Your task to perform on an android device: toggle translation in the chrome app Image 0: 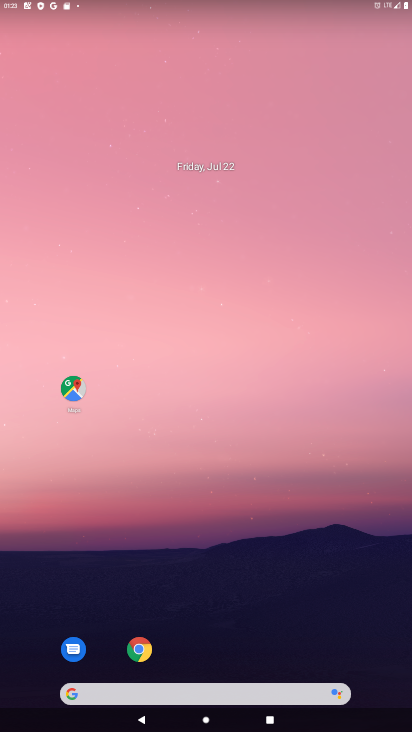
Step 0: drag from (281, 632) to (278, 0)
Your task to perform on an android device: toggle translation in the chrome app Image 1: 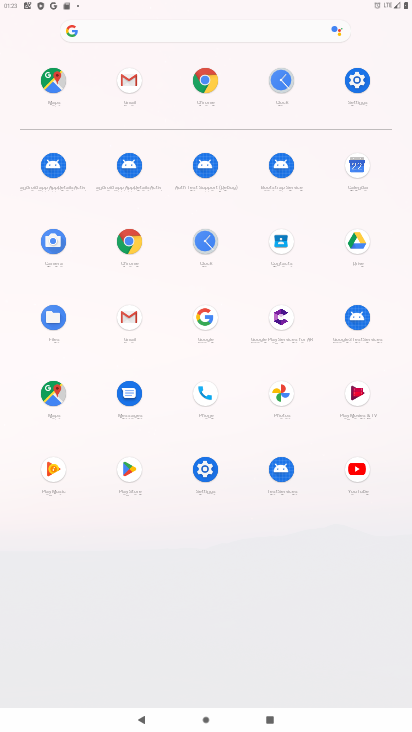
Step 1: click (135, 241)
Your task to perform on an android device: toggle translation in the chrome app Image 2: 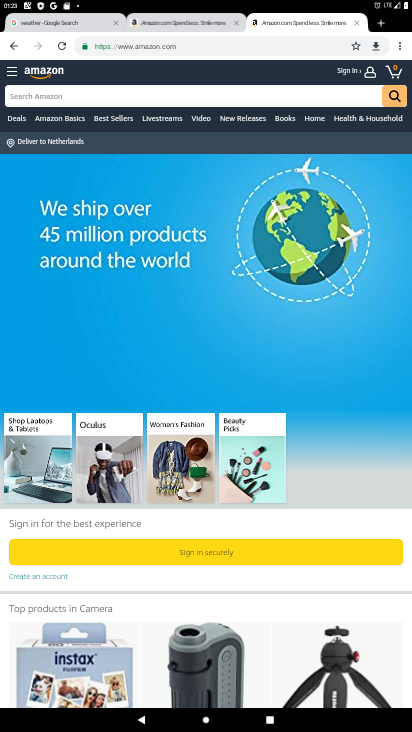
Step 2: drag from (396, 42) to (310, 338)
Your task to perform on an android device: toggle translation in the chrome app Image 3: 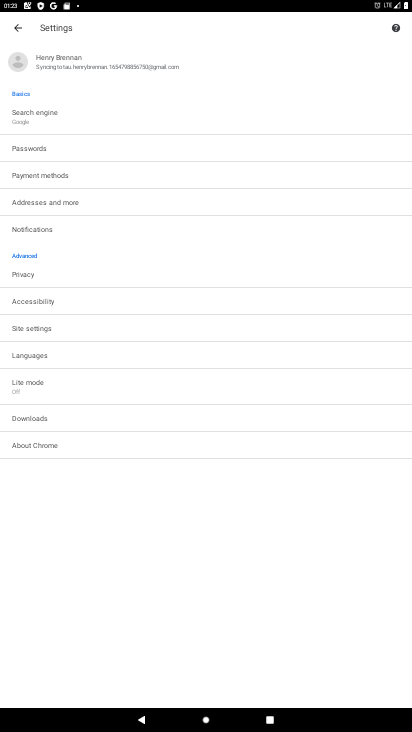
Step 3: click (38, 360)
Your task to perform on an android device: toggle translation in the chrome app Image 4: 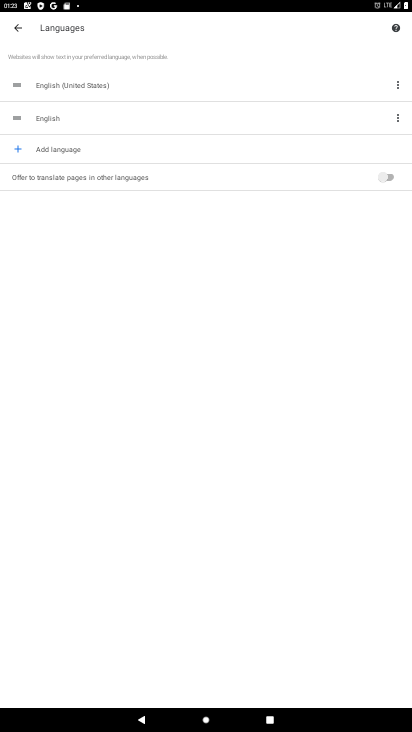
Step 4: click (372, 175)
Your task to perform on an android device: toggle translation in the chrome app Image 5: 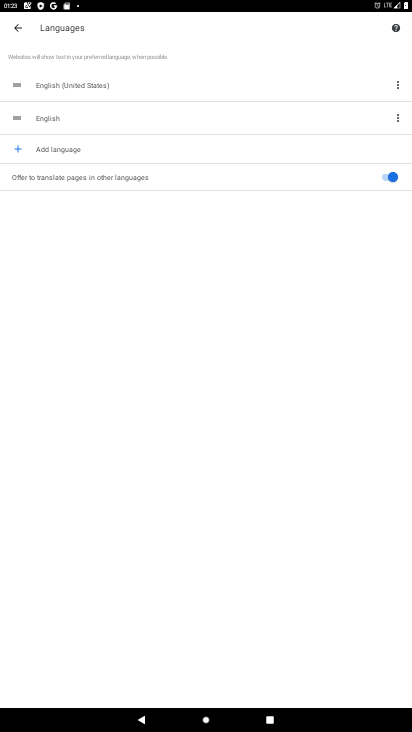
Step 5: task complete